Your task to perform on an android device: star an email in the gmail app Image 0: 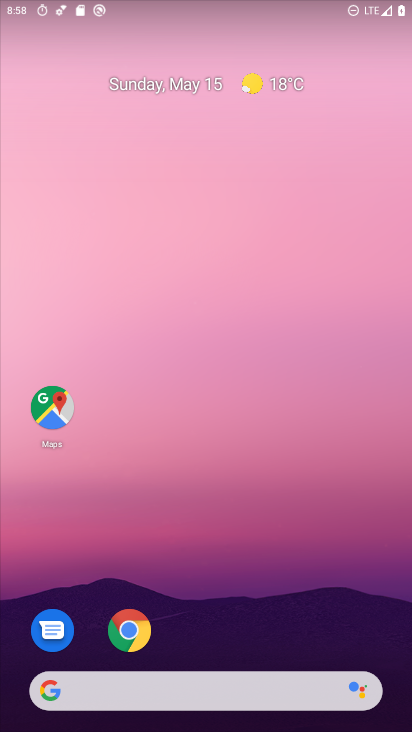
Step 0: click (324, 19)
Your task to perform on an android device: star an email in the gmail app Image 1: 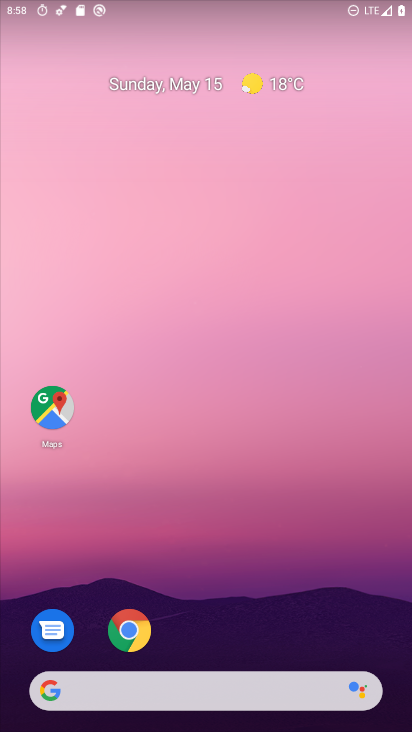
Step 1: drag from (188, 642) to (356, 10)
Your task to perform on an android device: star an email in the gmail app Image 2: 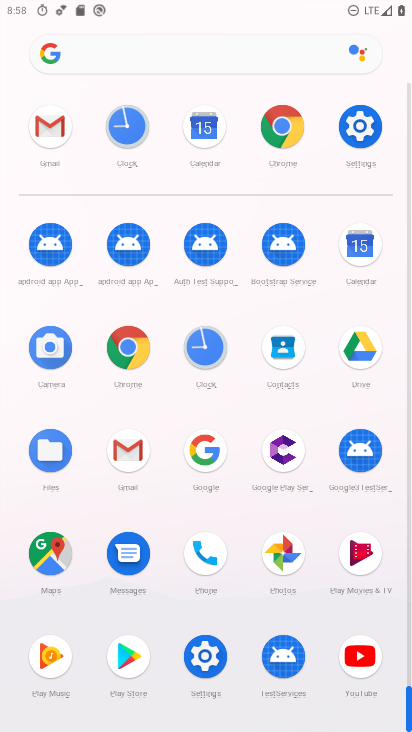
Step 2: click (117, 447)
Your task to perform on an android device: star an email in the gmail app Image 3: 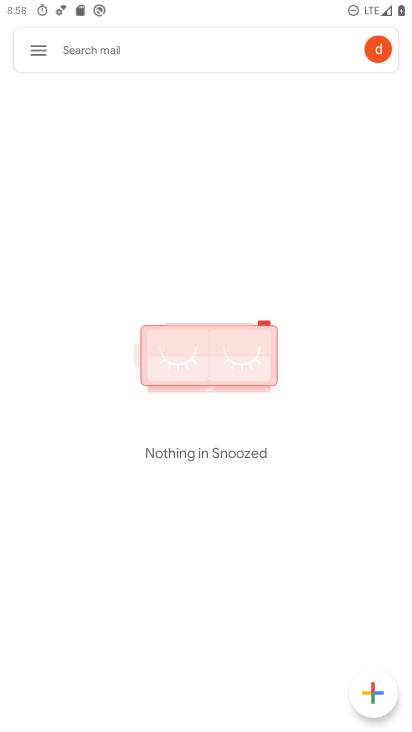
Step 3: click (29, 48)
Your task to perform on an android device: star an email in the gmail app Image 4: 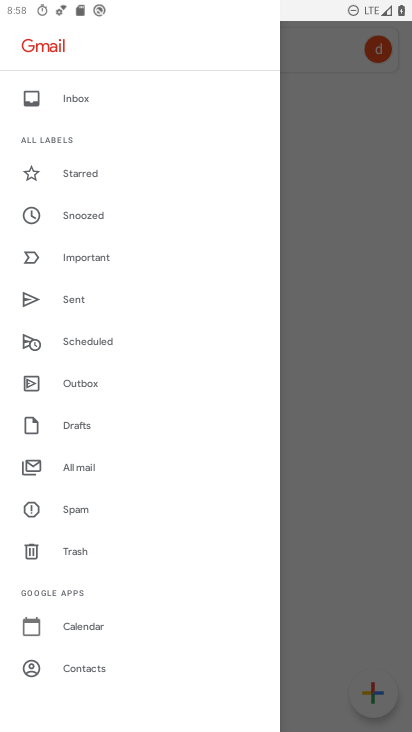
Step 4: drag from (122, 176) to (154, 500)
Your task to perform on an android device: star an email in the gmail app Image 5: 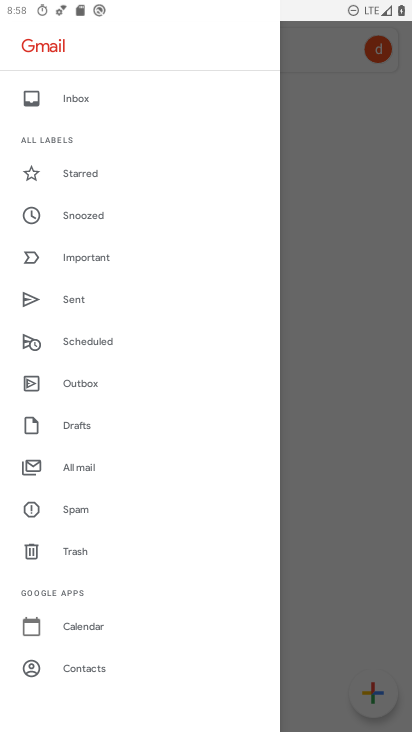
Step 5: click (109, 165)
Your task to perform on an android device: star an email in the gmail app Image 6: 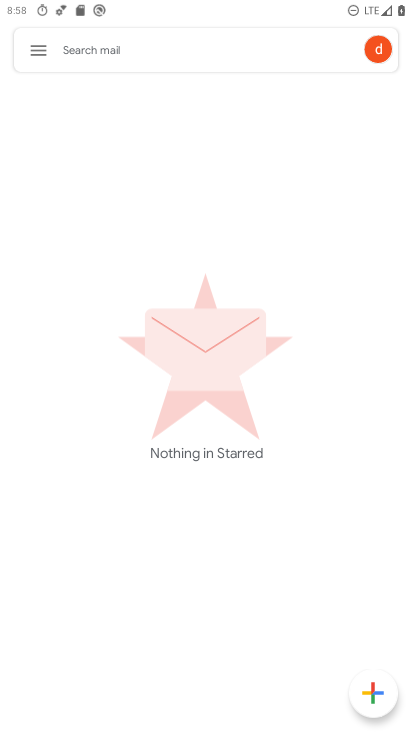
Step 6: click (291, 178)
Your task to perform on an android device: star an email in the gmail app Image 7: 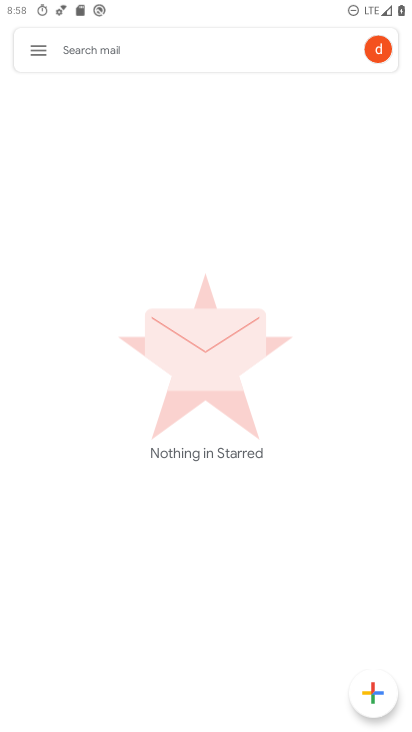
Step 7: task complete